Your task to perform on an android device: Open maps Image 0: 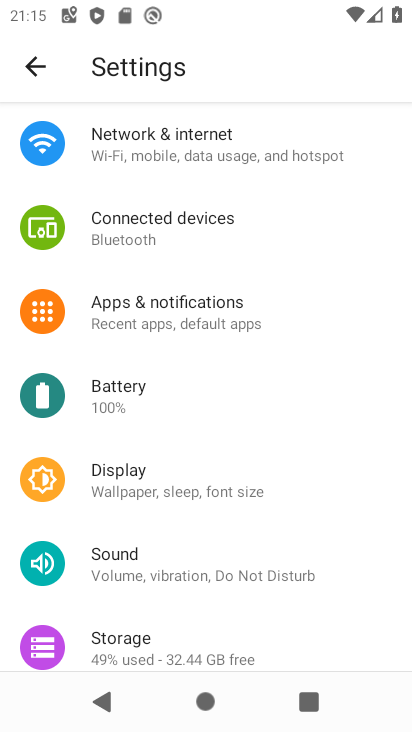
Step 0: press home button
Your task to perform on an android device: Open maps Image 1: 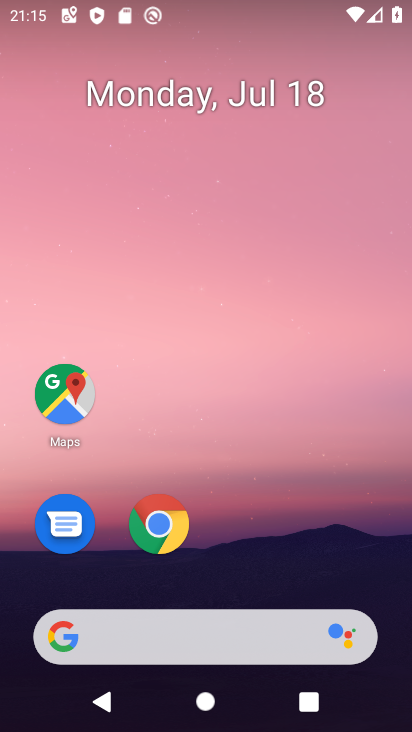
Step 1: click (71, 394)
Your task to perform on an android device: Open maps Image 2: 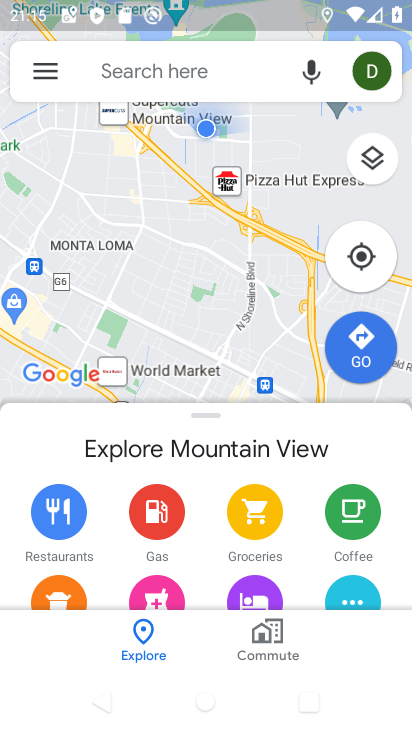
Step 2: click (69, 401)
Your task to perform on an android device: Open maps Image 3: 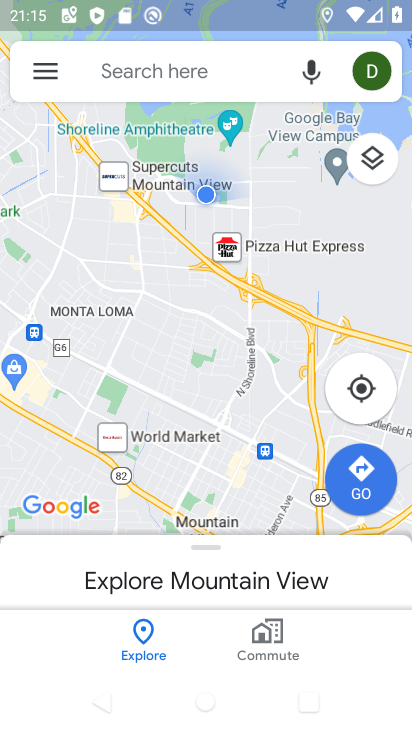
Step 3: task complete